Your task to perform on an android device: open app "Cash App" (install if not already installed) and go to login screen Image 0: 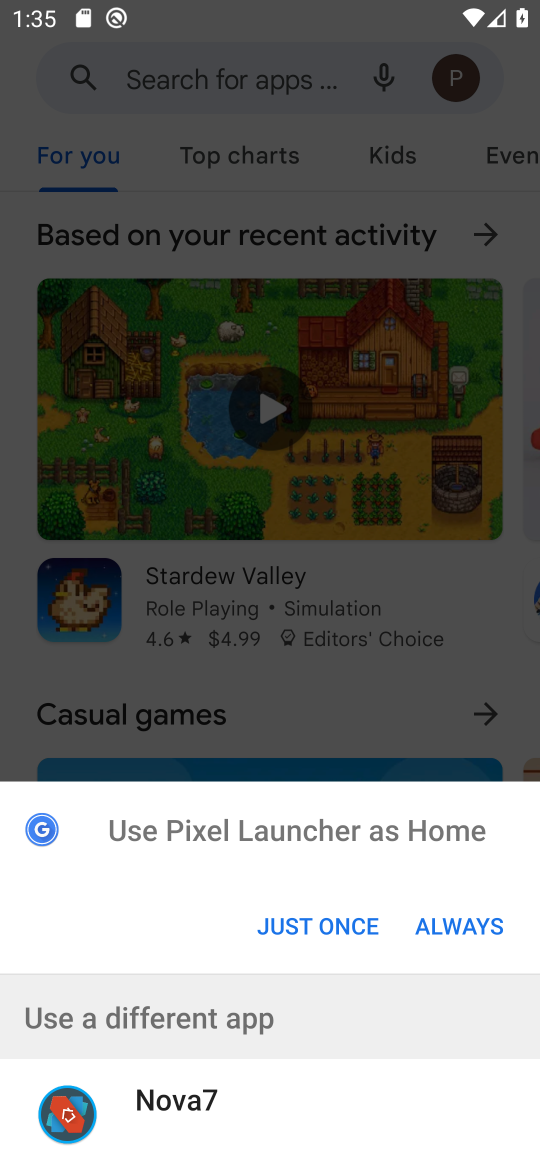
Step 0: click (343, 912)
Your task to perform on an android device: open app "Cash App" (install if not already installed) and go to login screen Image 1: 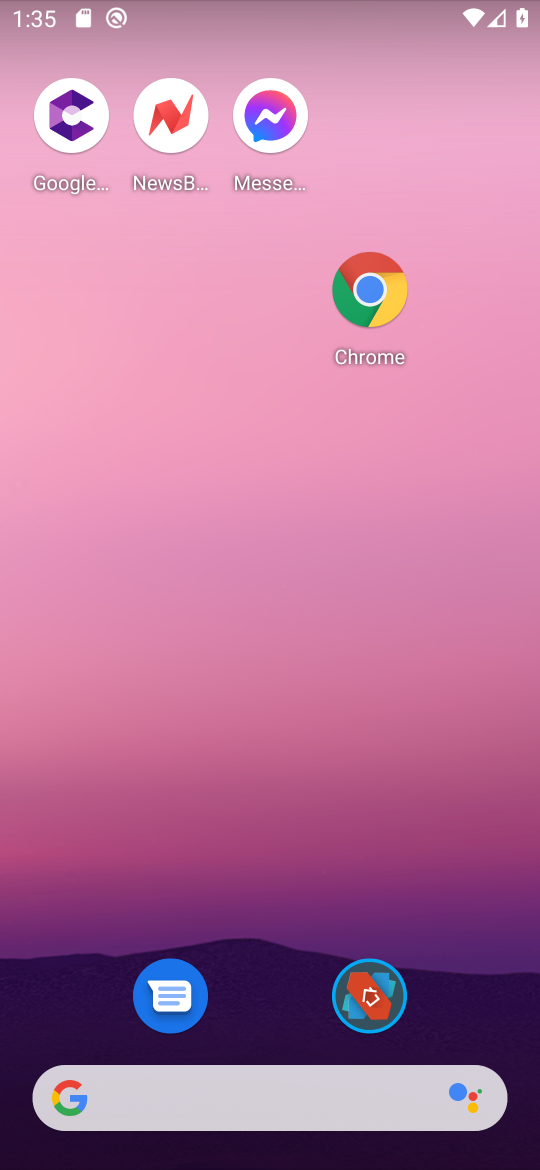
Step 1: drag from (203, 1088) to (291, 273)
Your task to perform on an android device: open app "Cash App" (install if not already installed) and go to login screen Image 2: 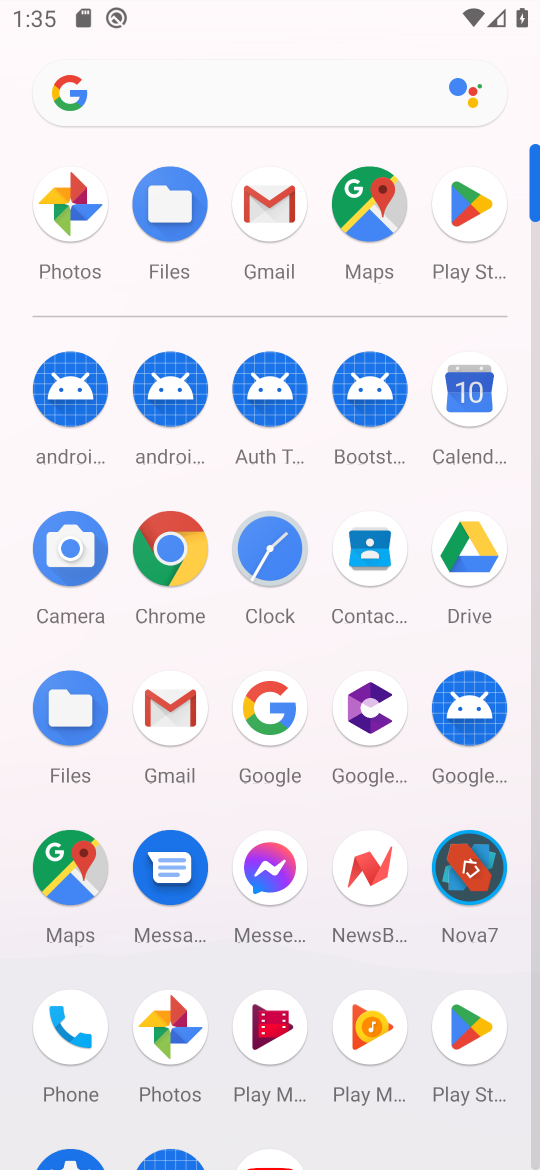
Step 2: click (462, 202)
Your task to perform on an android device: open app "Cash App" (install if not already installed) and go to login screen Image 3: 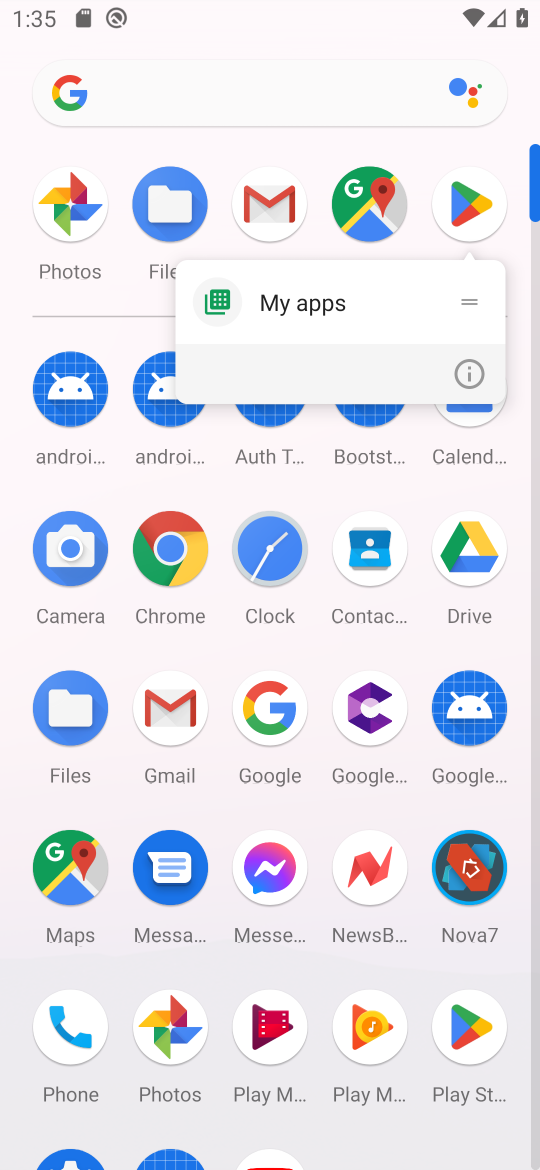
Step 3: click (463, 202)
Your task to perform on an android device: open app "Cash App" (install if not already installed) and go to login screen Image 4: 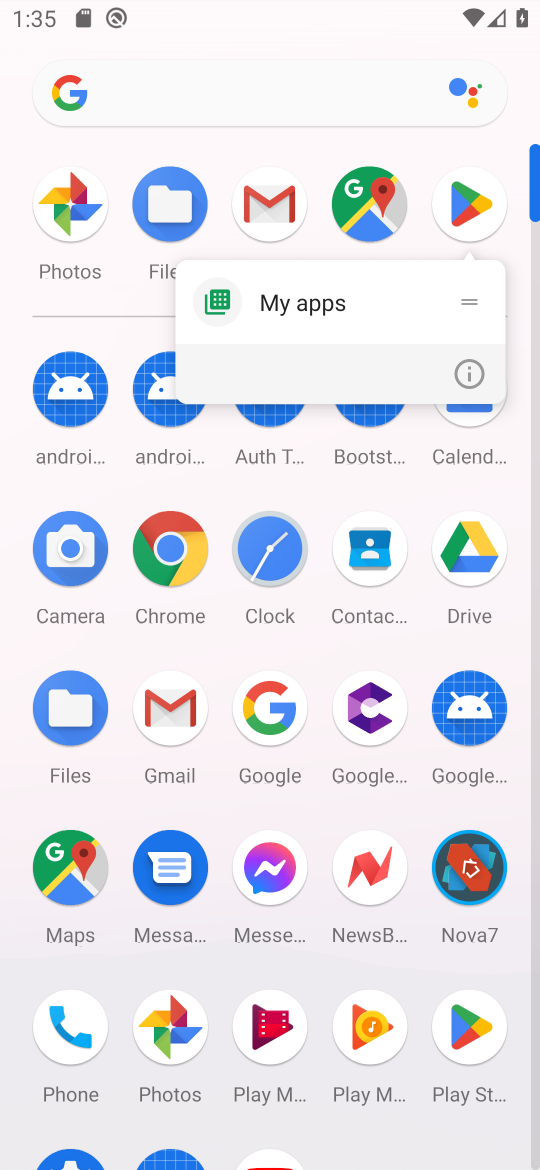
Step 4: click (464, 214)
Your task to perform on an android device: open app "Cash App" (install if not already installed) and go to login screen Image 5: 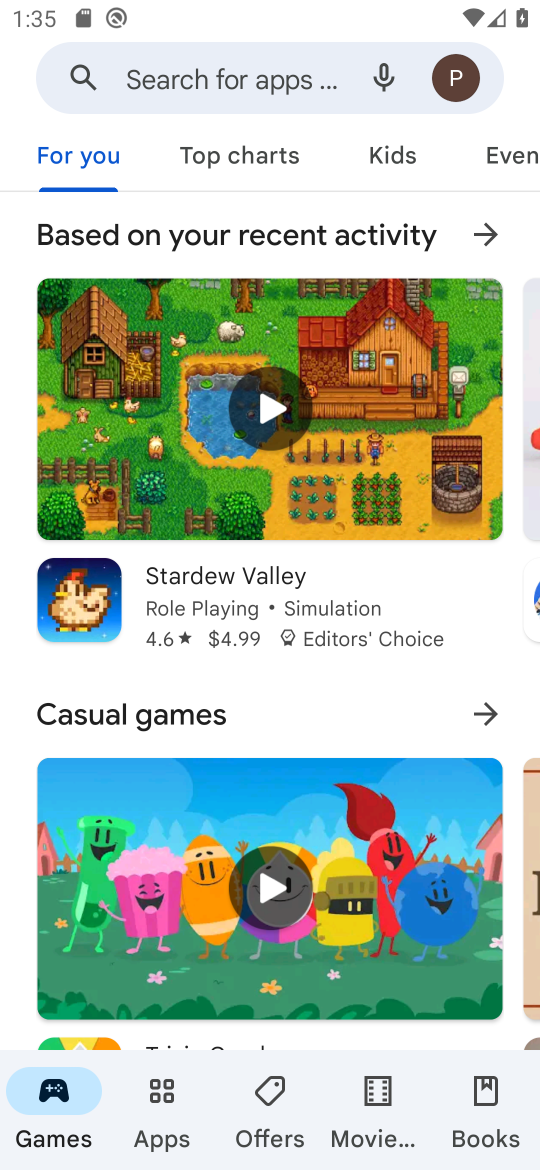
Step 5: click (174, 83)
Your task to perform on an android device: open app "Cash App" (install if not already installed) and go to login screen Image 6: 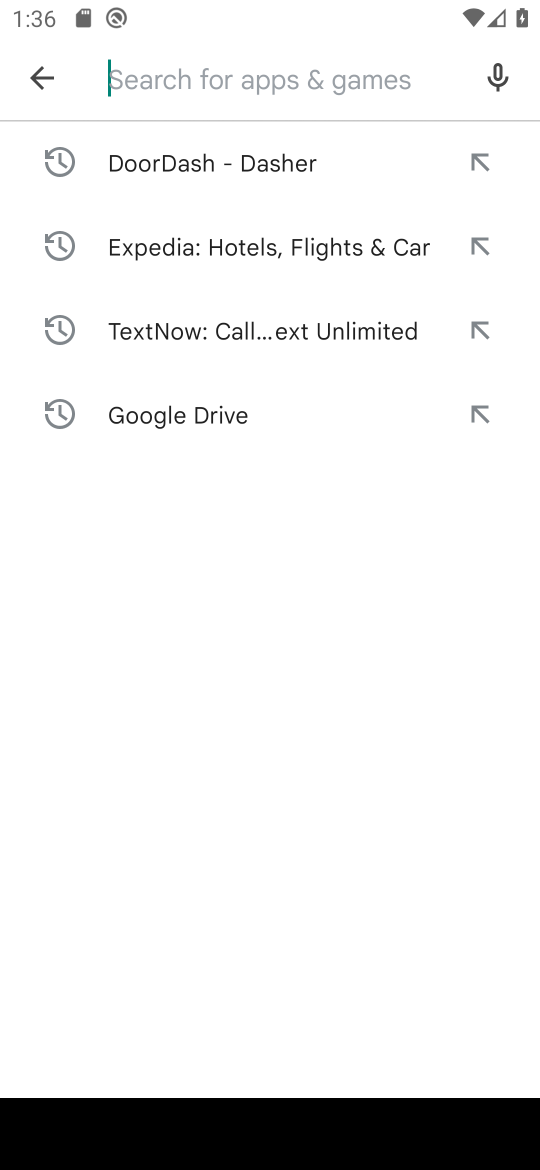
Step 6: type "Cash App"
Your task to perform on an android device: open app "Cash App" (install if not already installed) and go to login screen Image 7: 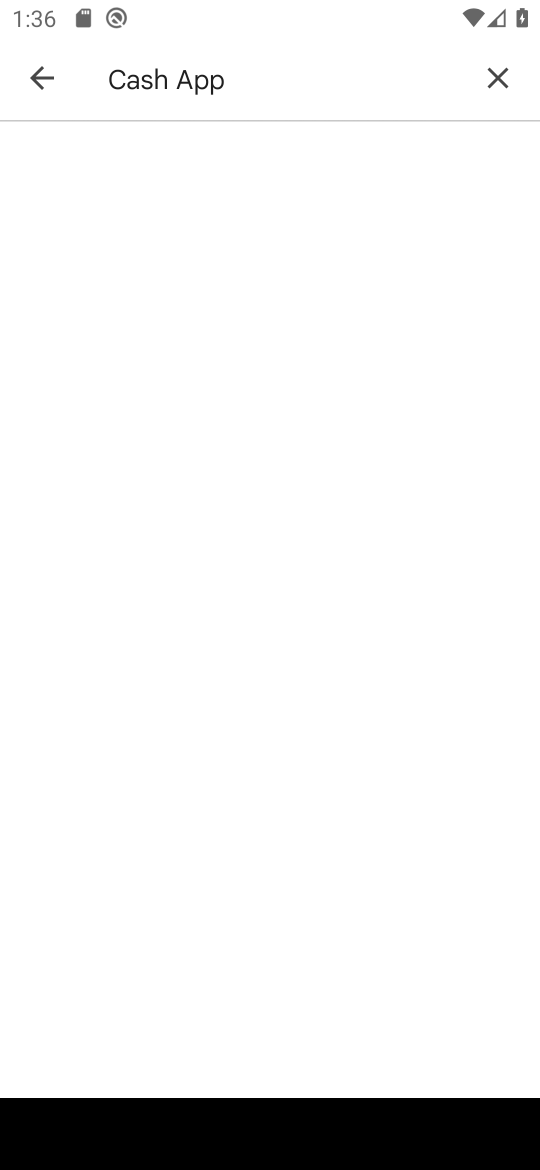
Step 7: press enter
Your task to perform on an android device: open app "Cash App" (install if not already installed) and go to login screen Image 8: 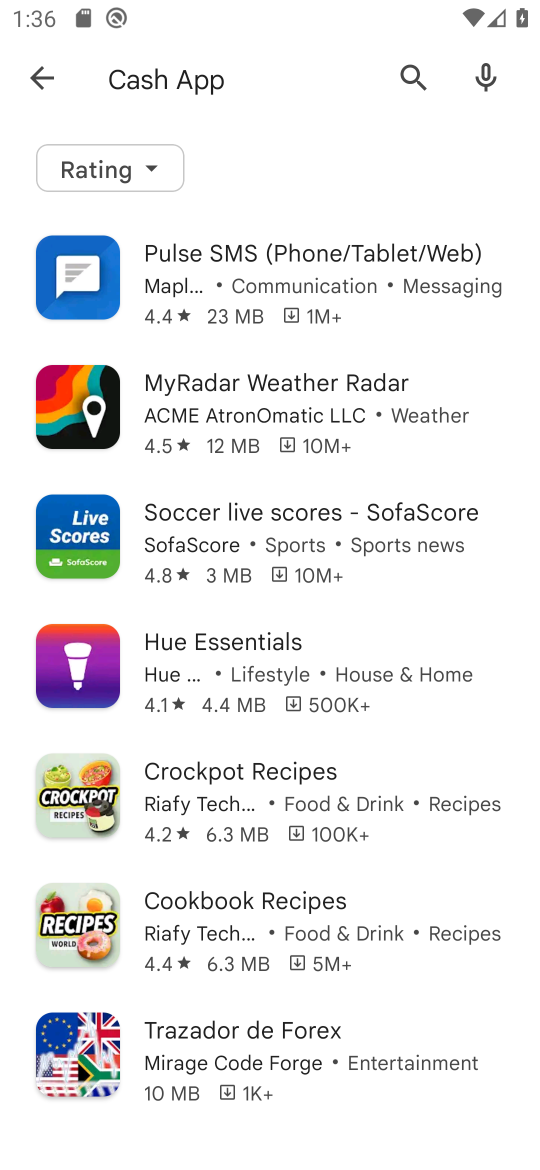
Step 8: task complete